Your task to perform on an android device: change the clock display to analog Image 0: 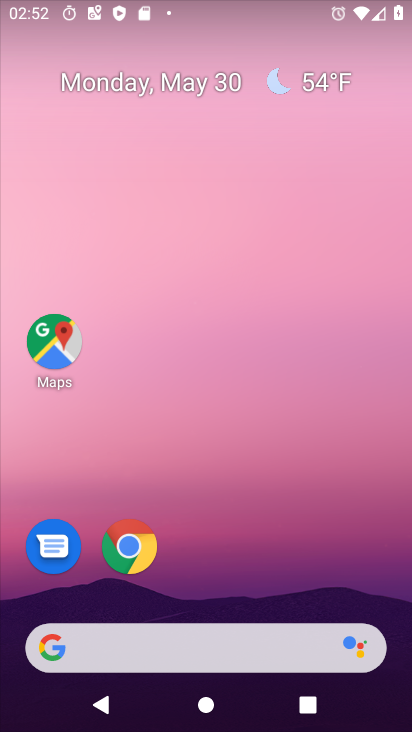
Step 0: press home button
Your task to perform on an android device: change the clock display to analog Image 1: 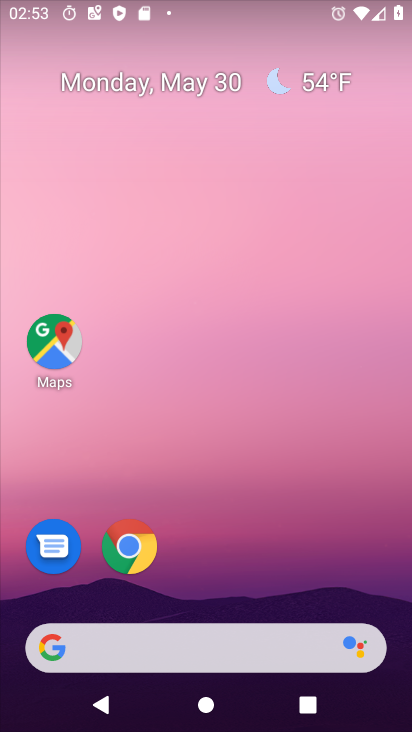
Step 1: drag from (184, 570) to (197, 51)
Your task to perform on an android device: change the clock display to analog Image 2: 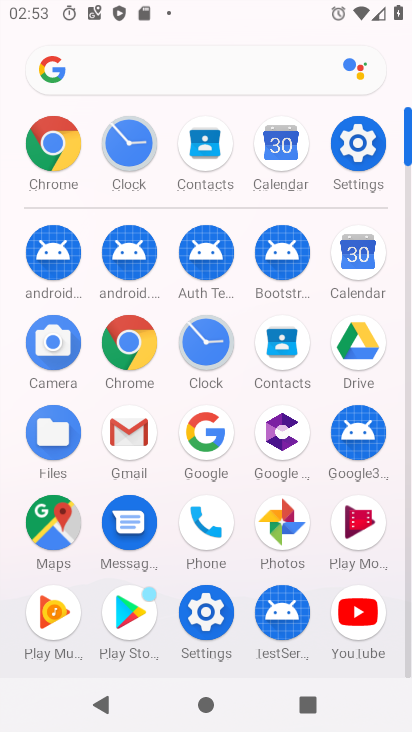
Step 2: click (205, 332)
Your task to perform on an android device: change the clock display to analog Image 3: 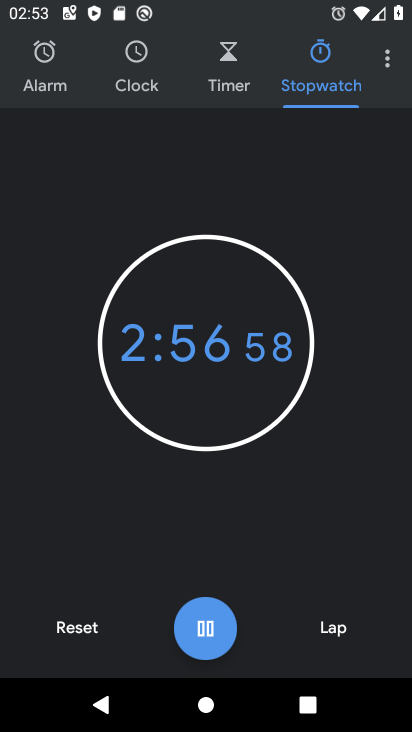
Step 3: click (91, 625)
Your task to perform on an android device: change the clock display to analog Image 4: 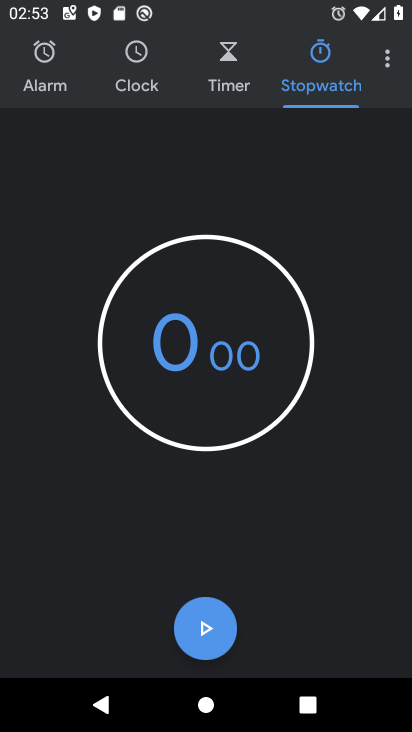
Step 4: click (390, 52)
Your task to perform on an android device: change the clock display to analog Image 5: 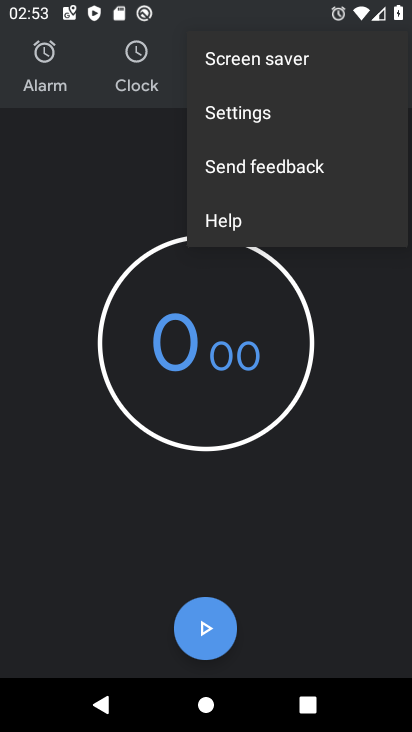
Step 5: click (287, 102)
Your task to perform on an android device: change the clock display to analog Image 6: 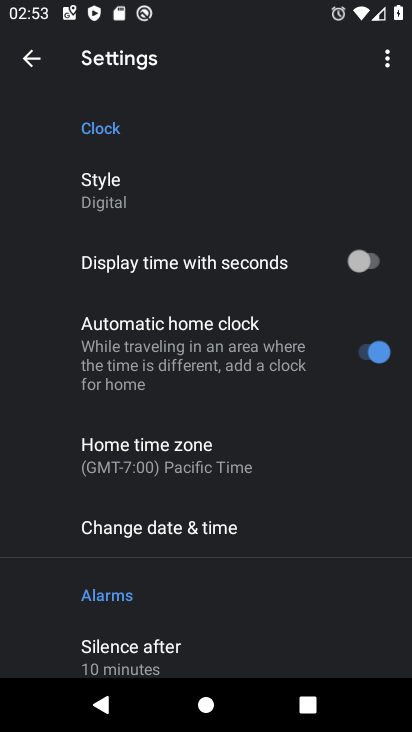
Step 6: click (153, 188)
Your task to perform on an android device: change the clock display to analog Image 7: 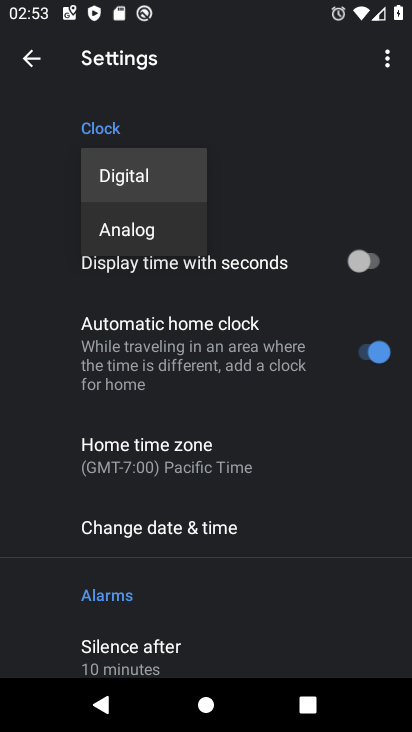
Step 7: click (165, 227)
Your task to perform on an android device: change the clock display to analog Image 8: 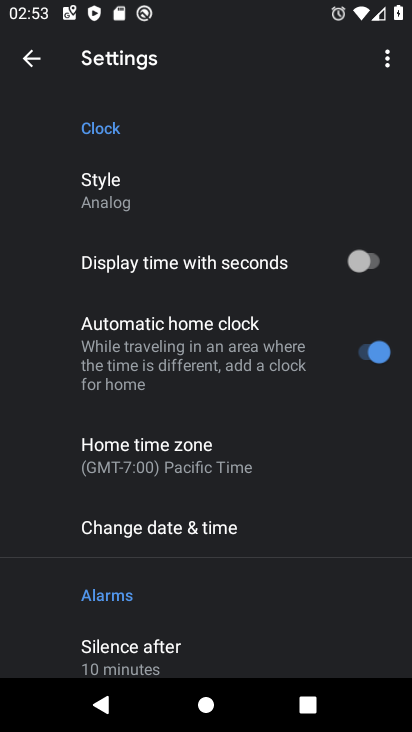
Step 8: task complete